Your task to perform on an android device: Open eBay Image 0: 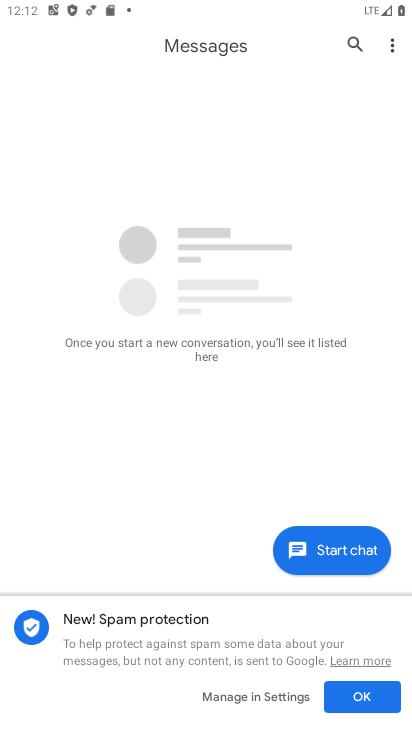
Step 0: press home button
Your task to perform on an android device: Open eBay Image 1: 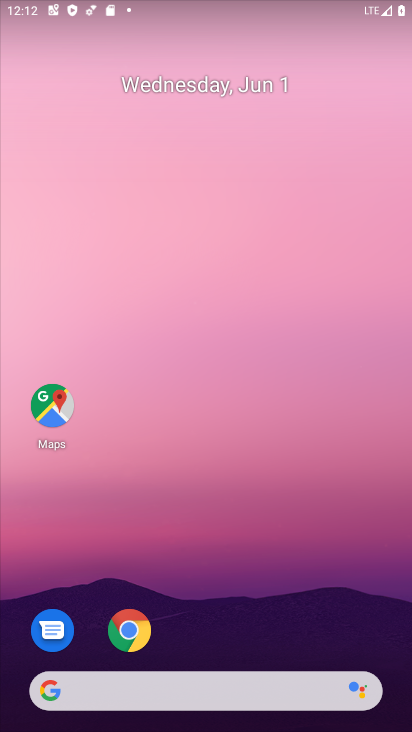
Step 1: click (210, 695)
Your task to perform on an android device: Open eBay Image 2: 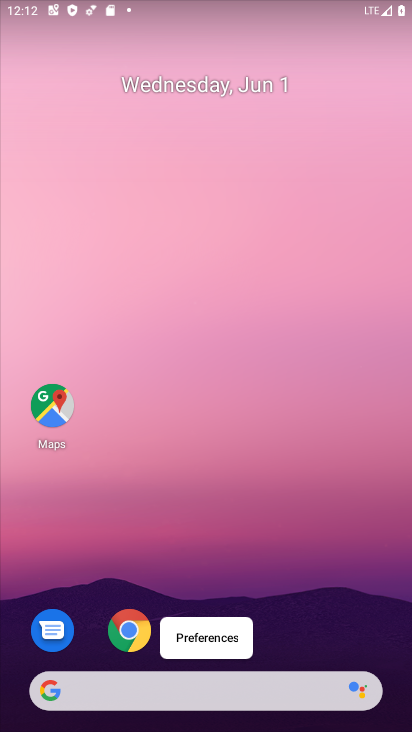
Step 2: click (147, 690)
Your task to perform on an android device: Open eBay Image 3: 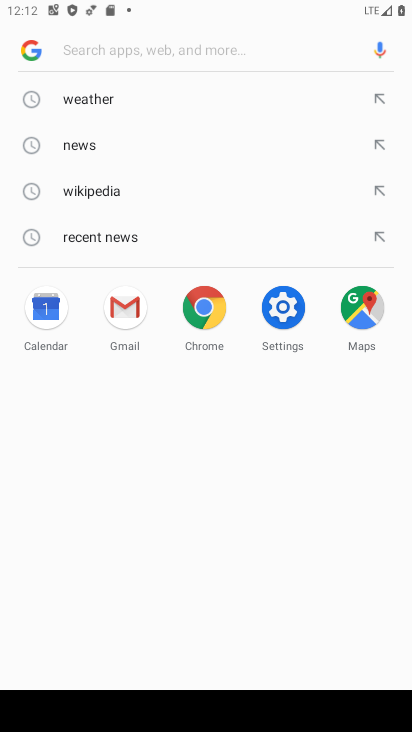
Step 3: type "eBay"
Your task to perform on an android device: Open eBay Image 4: 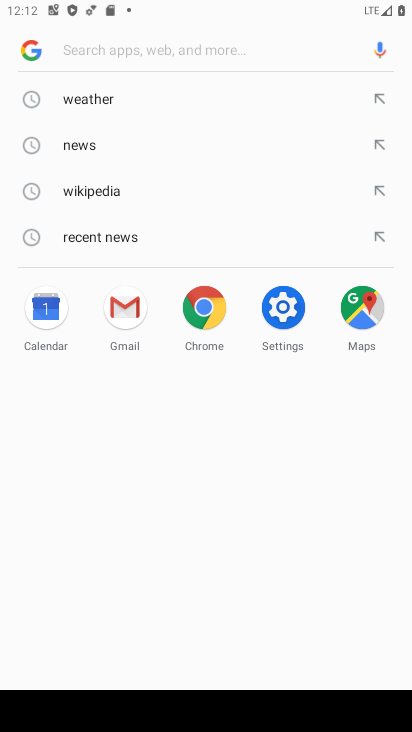
Step 4: click (137, 49)
Your task to perform on an android device: Open eBay Image 5: 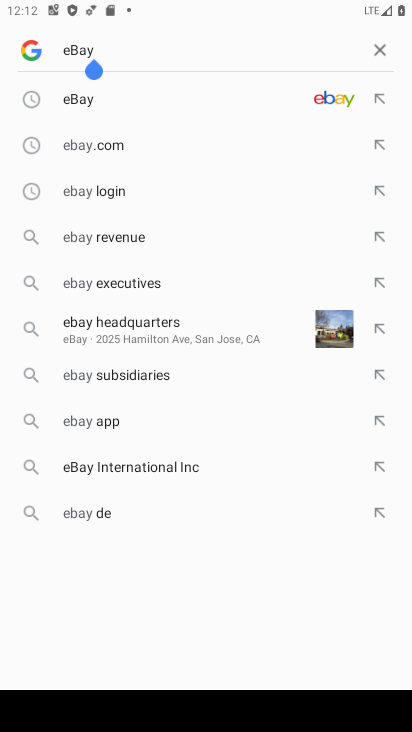
Step 5: click (84, 97)
Your task to perform on an android device: Open eBay Image 6: 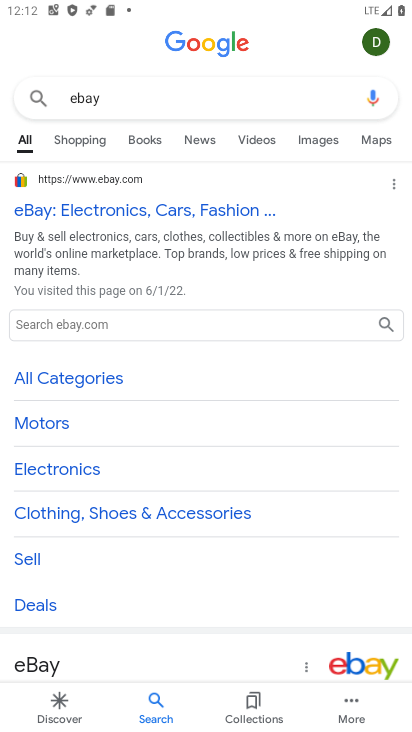
Step 6: click (95, 209)
Your task to perform on an android device: Open eBay Image 7: 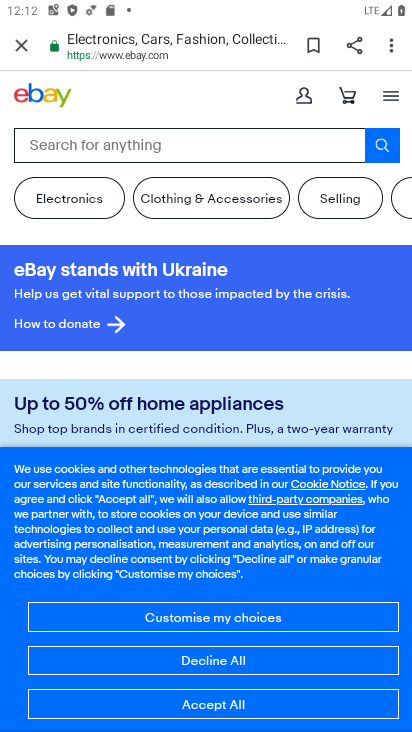
Step 7: task complete